Your task to perform on an android device: Open Google Maps Image 0: 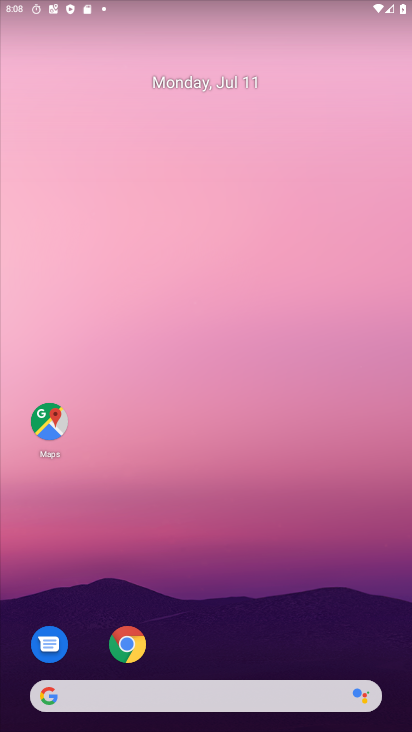
Step 0: click (46, 431)
Your task to perform on an android device: Open Google Maps Image 1: 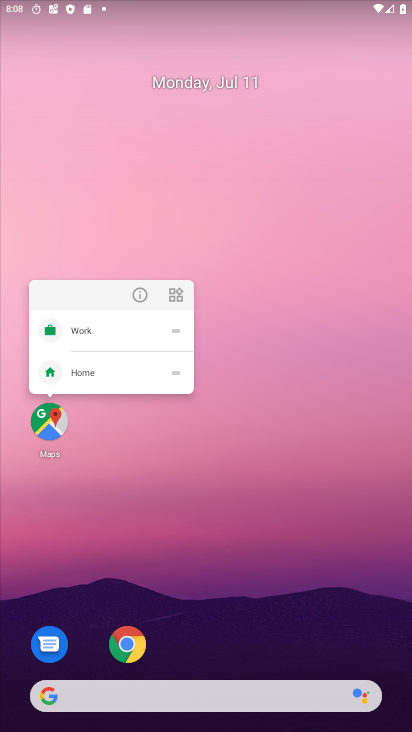
Step 1: click (51, 419)
Your task to perform on an android device: Open Google Maps Image 2: 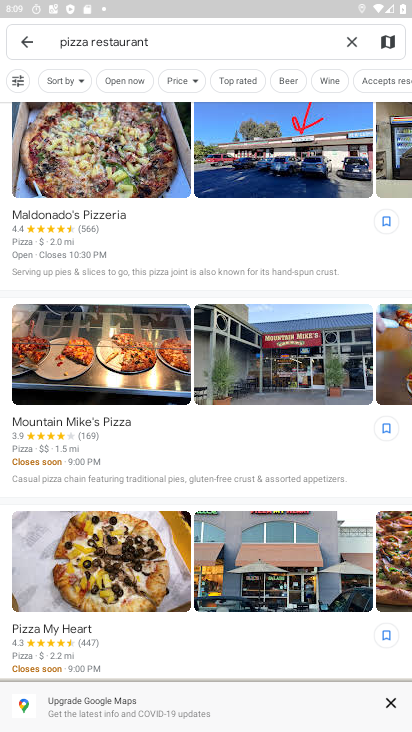
Step 2: task complete